Your task to perform on an android device: change notifications settings Image 0: 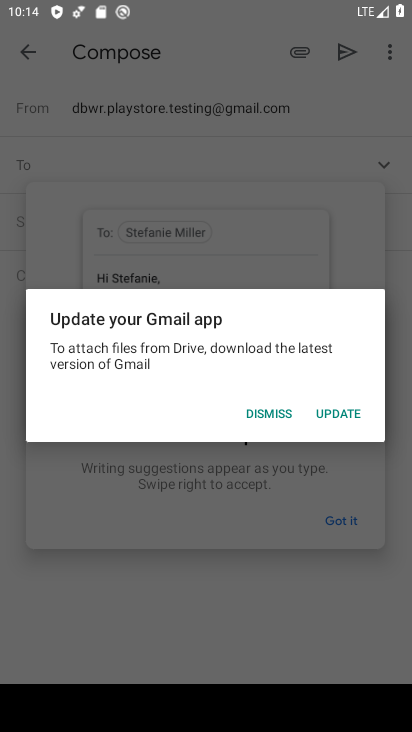
Step 0: press home button
Your task to perform on an android device: change notifications settings Image 1: 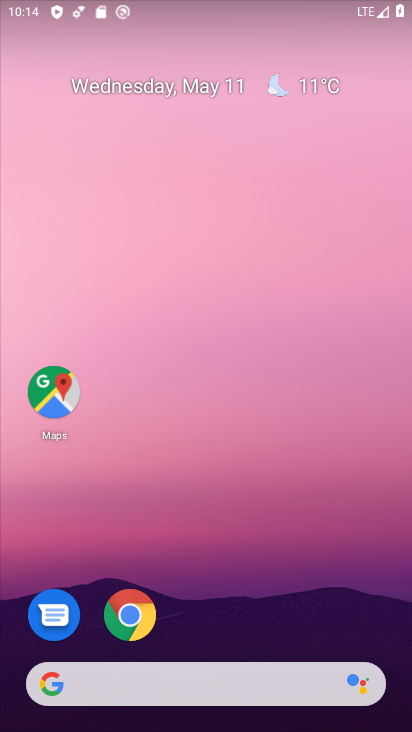
Step 1: drag from (326, 553) to (373, 87)
Your task to perform on an android device: change notifications settings Image 2: 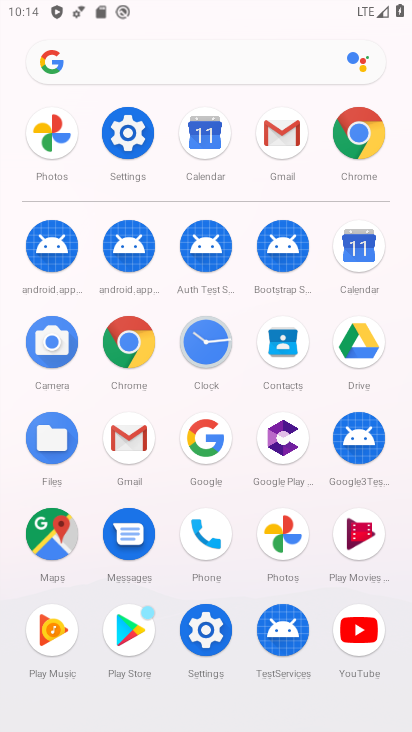
Step 2: click (123, 153)
Your task to perform on an android device: change notifications settings Image 3: 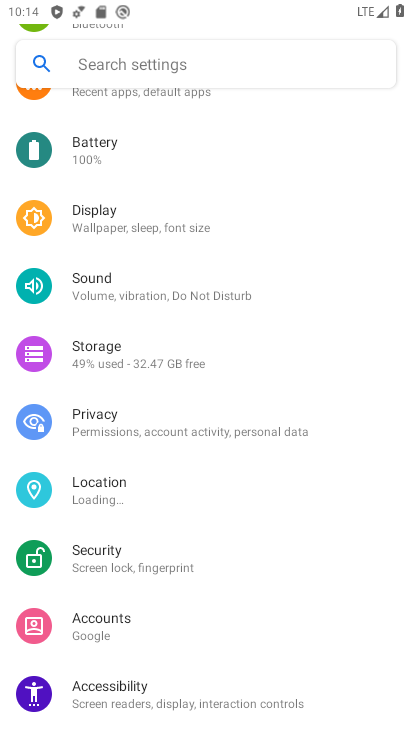
Step 3: drag from (116, 160) to (140, 597)
Your task to perform on an android device: change notifications settings Image 4: 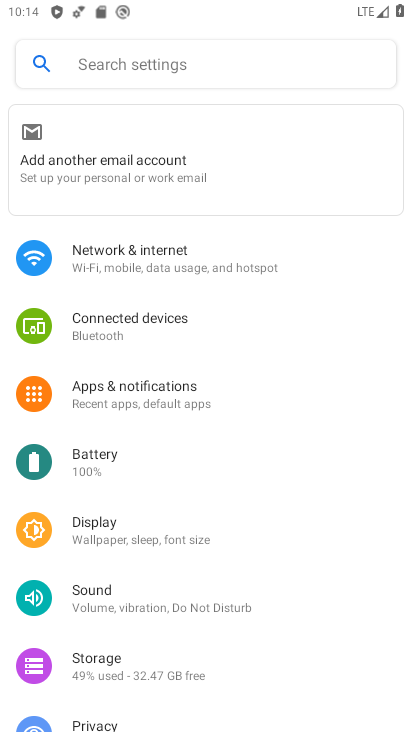
Step 4: click (115, 387)
Your task to perform on an android device: change notifications settings Image 5: 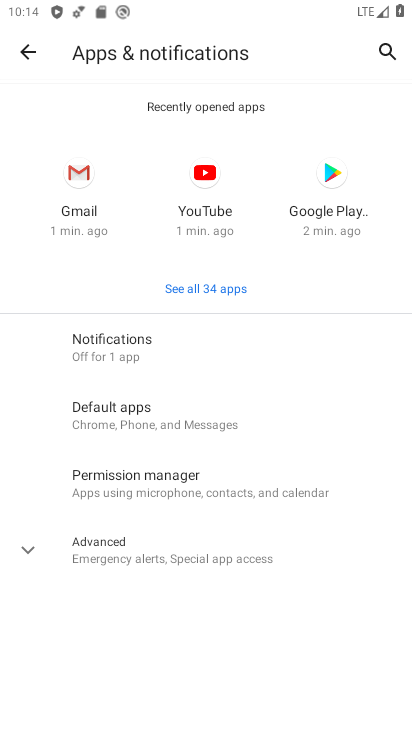
Step 5: click (121, 359)
Your task to perform on an android device: change notifications settings Image 6: 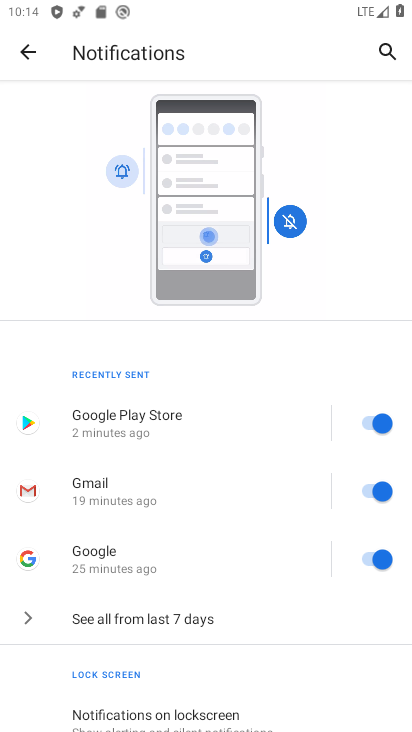
Step 6: drag from (146, 566) to (221, 108)
Your task to perform on an android device: change notifications settings Image 7: 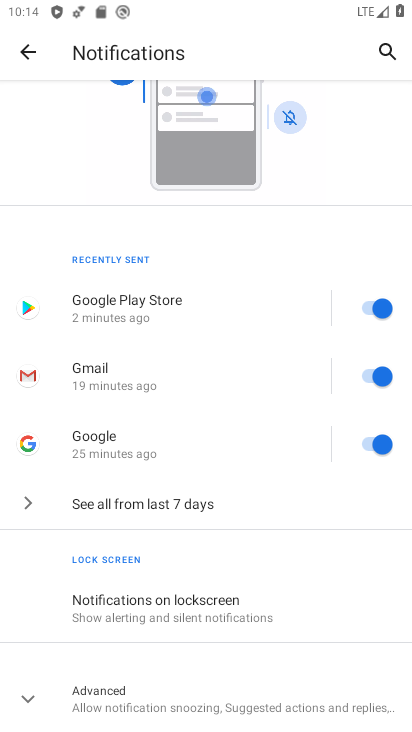
Step 7: click (138, 682)
Your task to perform on an android device: change notifications settings Image 8: 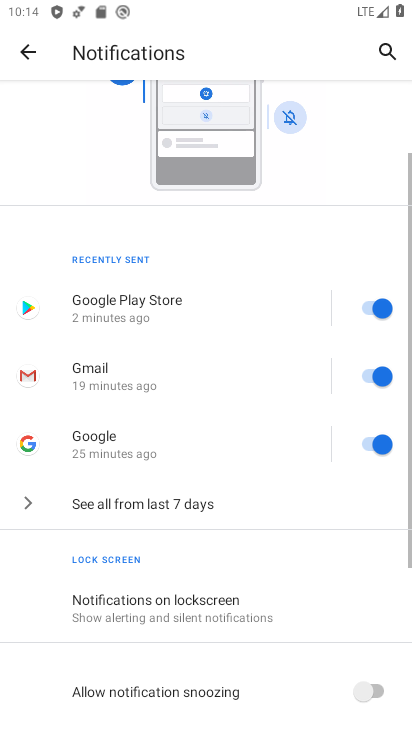
Step 8: drag from (137, 682) to (257, 263)
Your task to perform on an android device: change notifications settings Image 9: 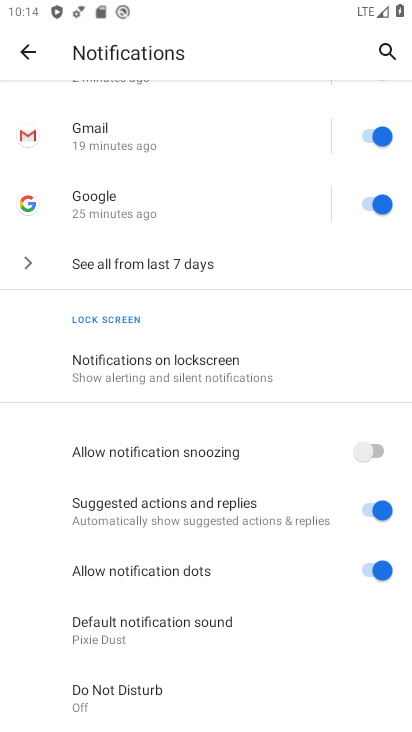
Step 9: click (374, 443)
Your task to perform on an android device: change notifications settings Image 10: 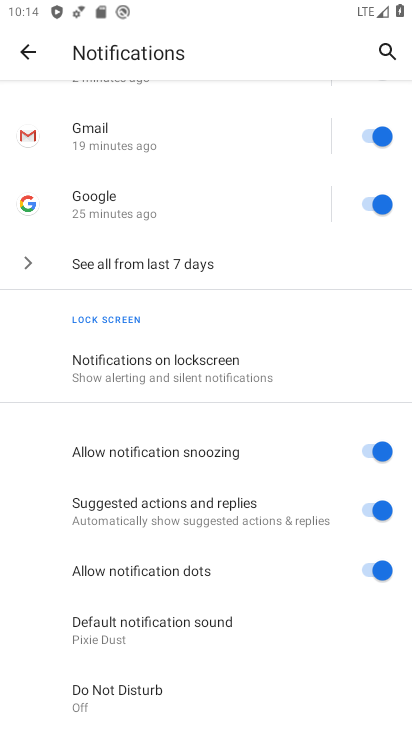
Step 10: task complete